Your task to perform on an android device: Go to location settings Image 0: 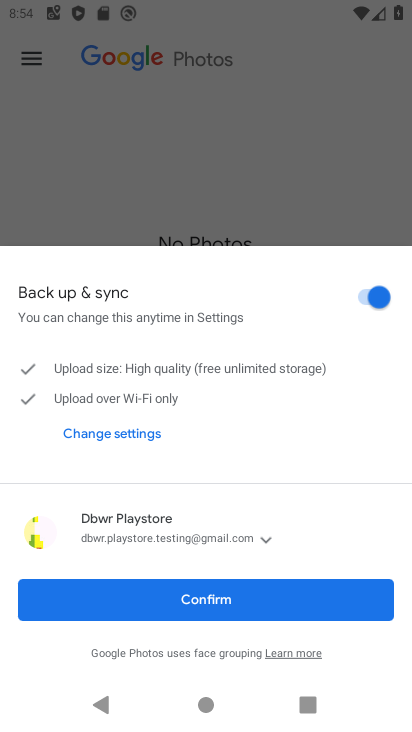
Step 0: press home button
Your task to perform on an android device: Go to location settings Image 1: 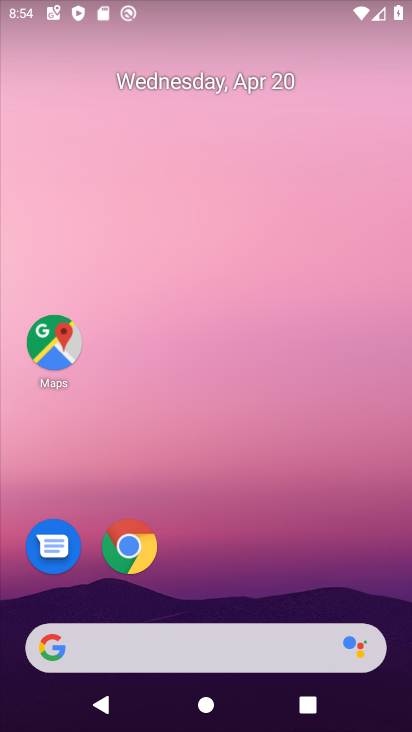
Step 1: drag from (208, 728) to (217, 69)
Your task to perform on an android device: Go to location settings Image 2: 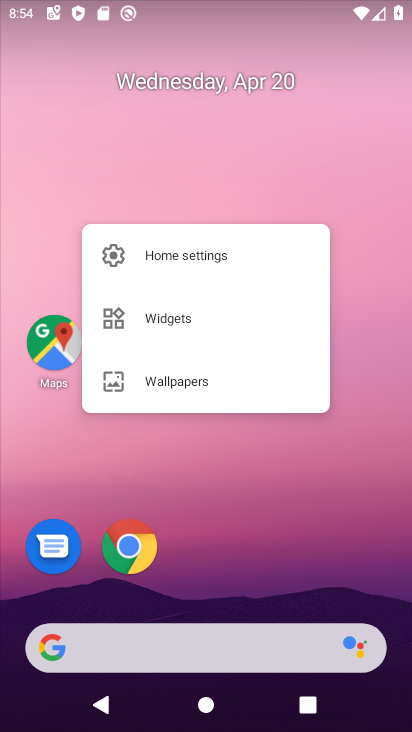
Step 2: click (345, 490)
Your task to perform on an android device: Go to location settings Image 3: 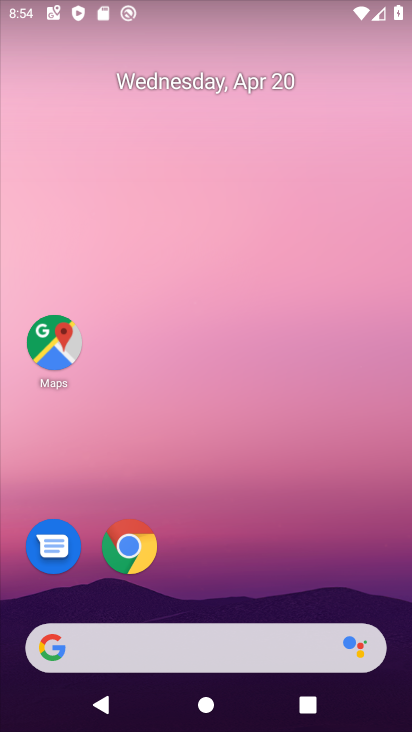
Step 3: drag from (208, 723) to (216, 84)
Your task to perform on an android device: Go to location settings Image 4: 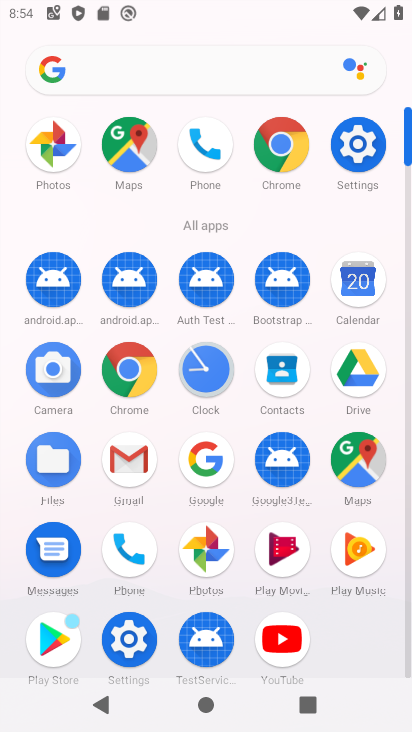
Step 4: click (354, 142)
Your task to perform on an android device: Go to location settings Image 5: 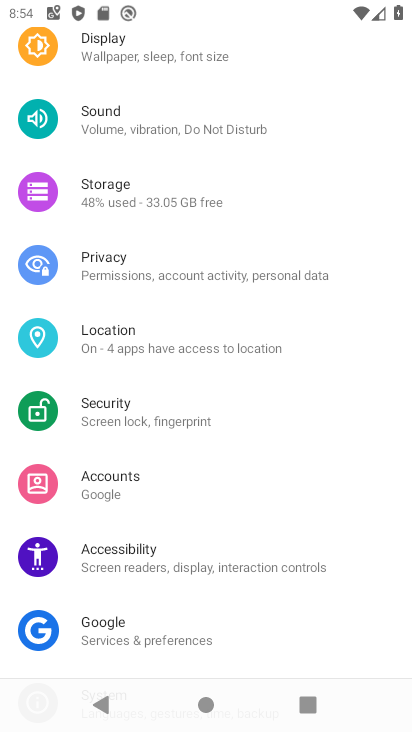
Step 5: click (111, 336)
Your task to perform on an android device: Go to location settings Image 6: 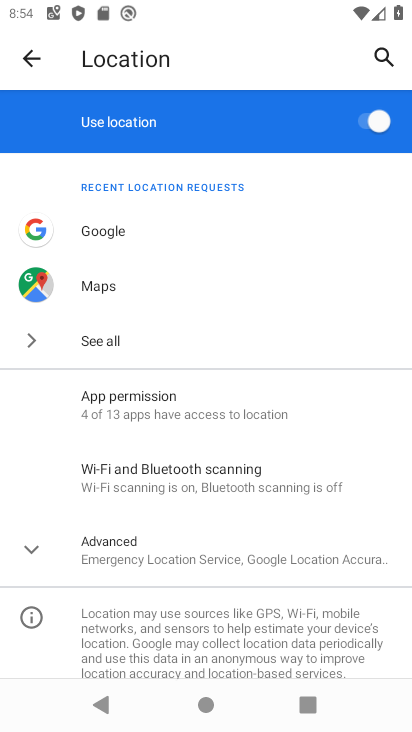
Step 6: task complete